Your task to perform on an android device: turn on sleep mode Image 0: 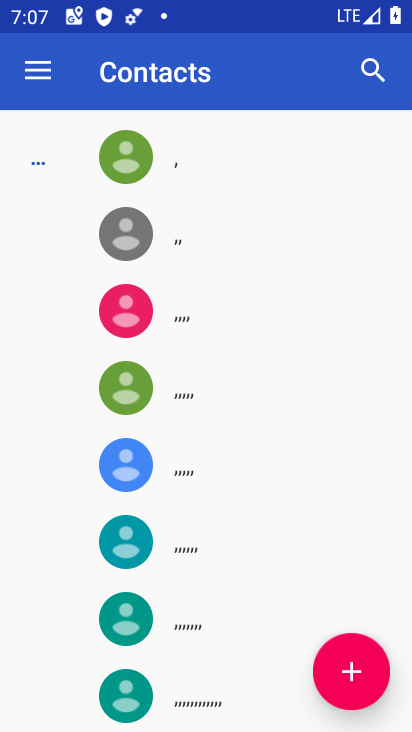
Step 0: press home button
Your task to perform on an android device: turn on sleep mode Image 1: 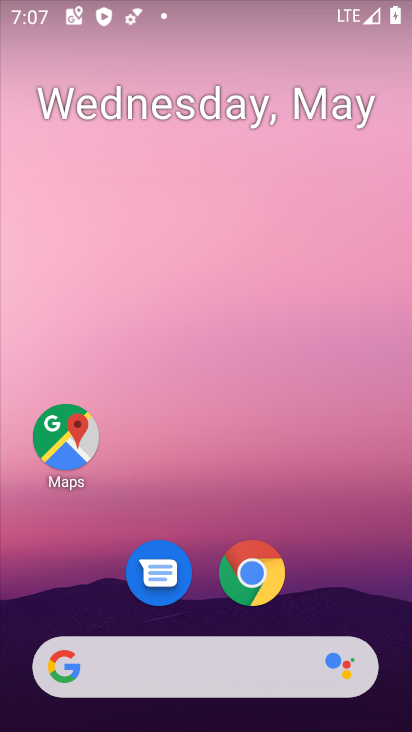
Step 1: task complete